Your task to perform on an android device: change your default location settings in chrome Image 0: 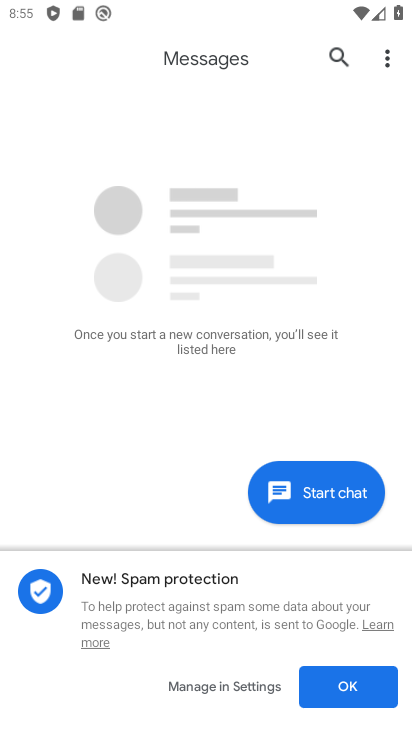
Step 0: press home button
Your task to perform on an android device: change your default location settings in chrome Image 1: 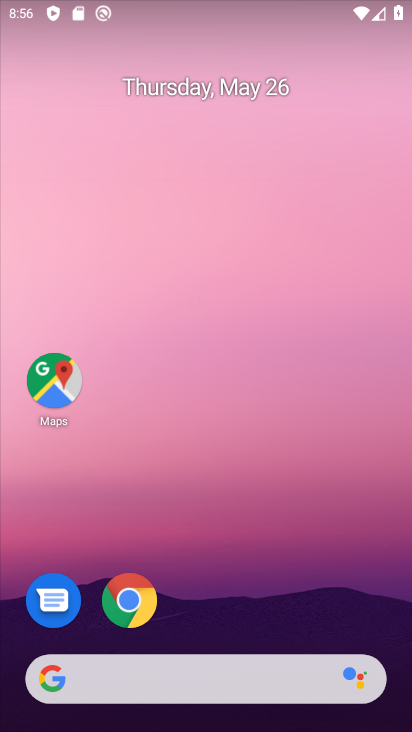
Step 1: drag from (167, 624) to (192, 174)
Your task to perform on an android device: change your default location settings in chrome Image 2: 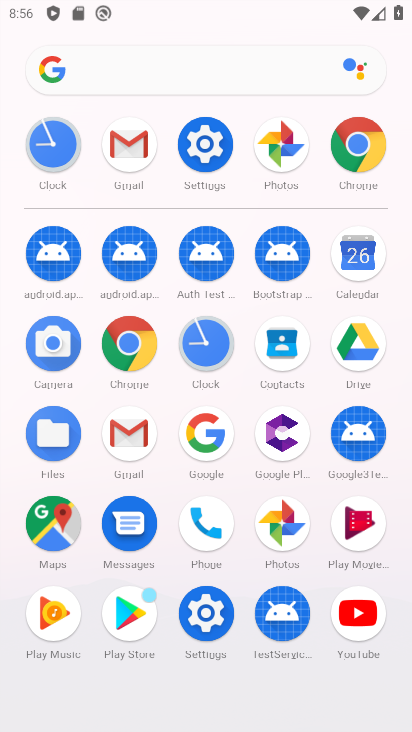
Step 2: click (370, 144)
Your task to perform on an android device: change your default location settings in chrome Image 3: 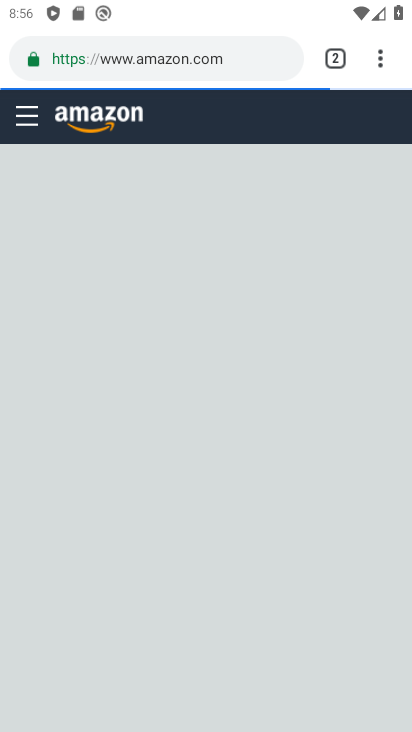
Step 3: click (387, 68)
Your task to perform on an android device: change your default location settings in chrome Image 4: 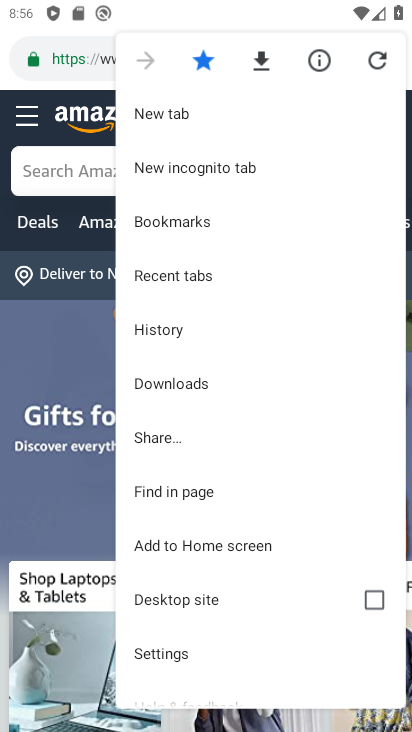
Step 4: click (167, 661)
Your task to perform on an android device: change your default location settings in chrome Image 5: 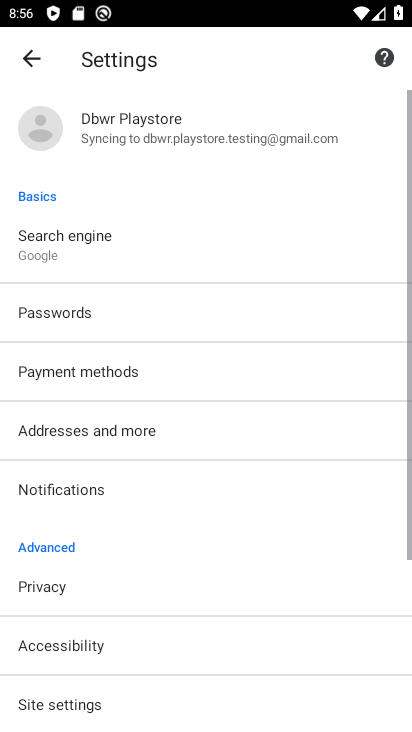
Step 5: click (102, 703)
Your task to perform on an android device: change your default location settings in chrome Image 6: 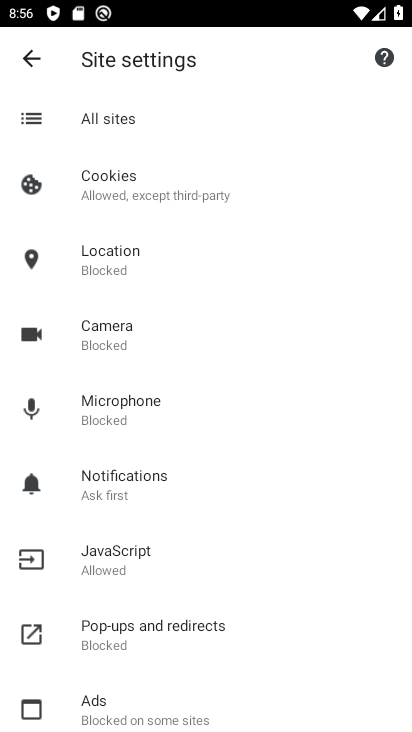
Step 6: click (129, 282)
Your task to perform on an android device: change your default location settings in chrome Image 7: 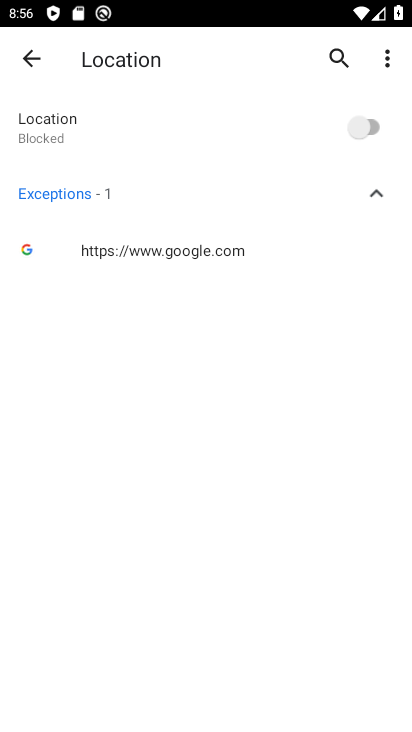
Step 7: task complete